Your task to perform on an android device: turn off wifi Image 0: 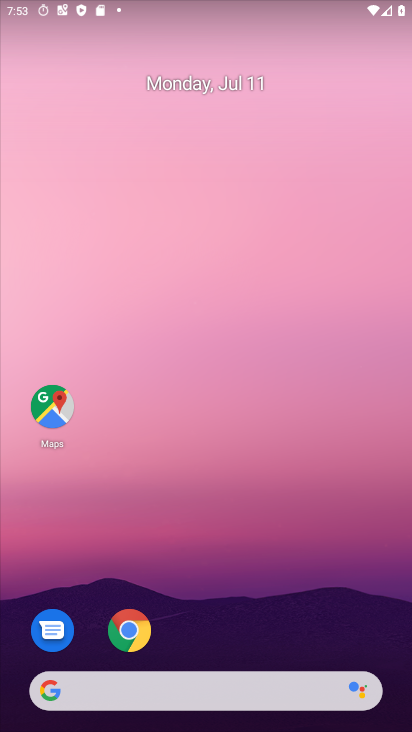
Step 0: drag from (160, 684) to (323, 0)
Your task to perform on an android device: turn off wifi Image 1: 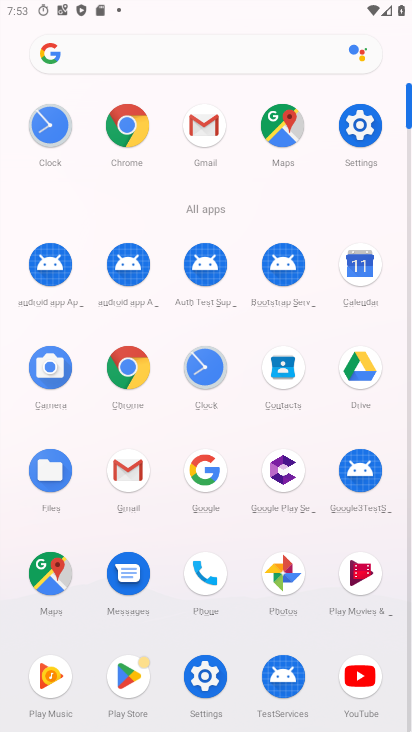
Step 1: click (366, 123)
Your task to perform on an android device: turn off wifi Image 2: 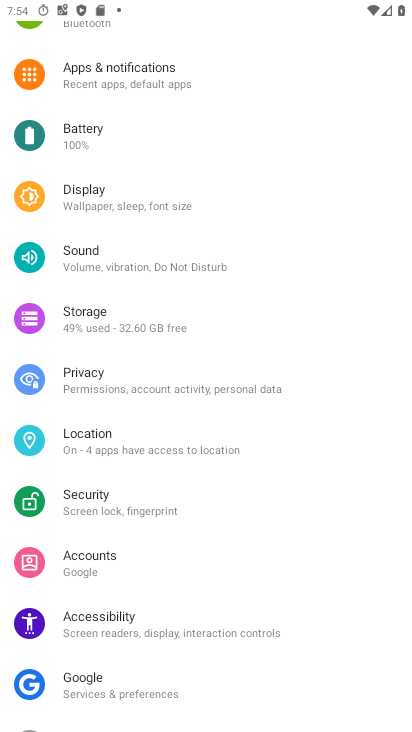
Step 2: drag from (267, 72) to (122, 434)
Your task to perform on an android device: turn off wifi Image 3: 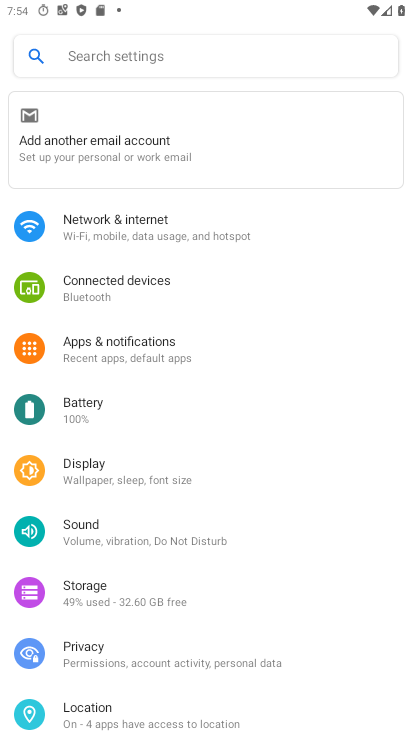
Step 3: click (155, 227)
Your task to perform on an android device: turn off wifi Image 4: 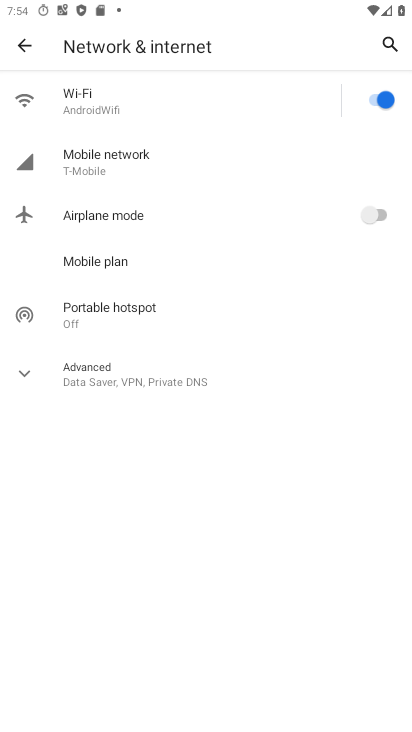
Step 4: click (372, 96)
Your task to perform on an android device: turn off wifi Image 5: 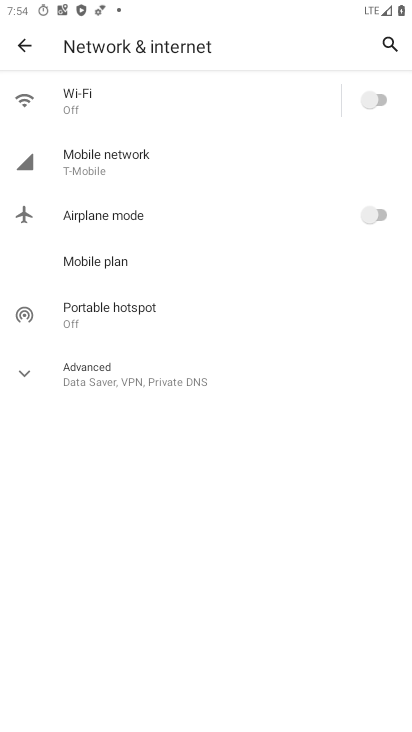
Step 5: task complete